Your task to perform on an android device: turn on location history Image 0: 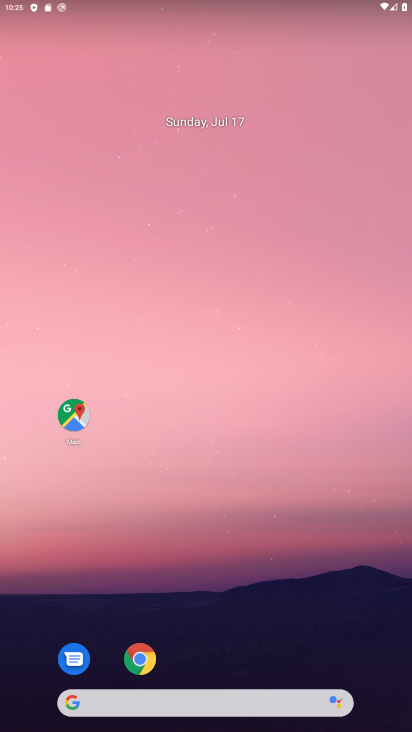
Step 0: drag from (316, 612) to (219, 53)
Your task to perform on an android device: turn on location history Image 1: 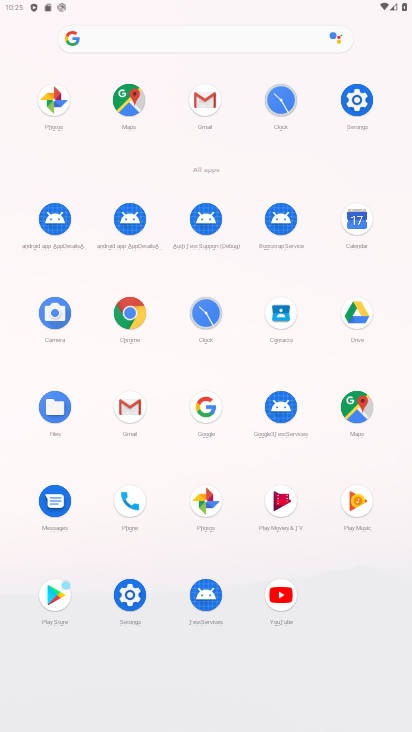
Step 1: click (369, 98)
Your task to perform on an android device: turn on location history Image 2: 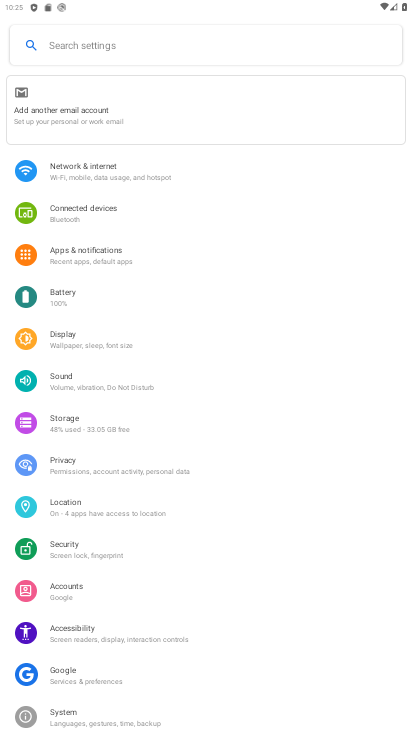
Step 2: click (94, 511)
Your task to perform on an android device: turn on location history Image 3: 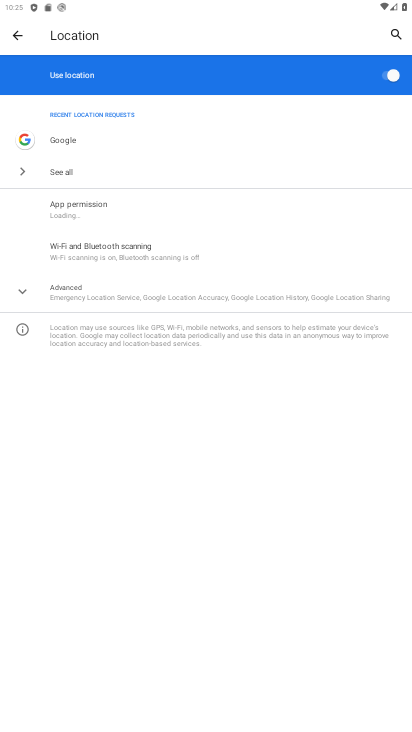
Step 3: click (97, 296)
Your task to perform on an android device: turn on location history Image 4: 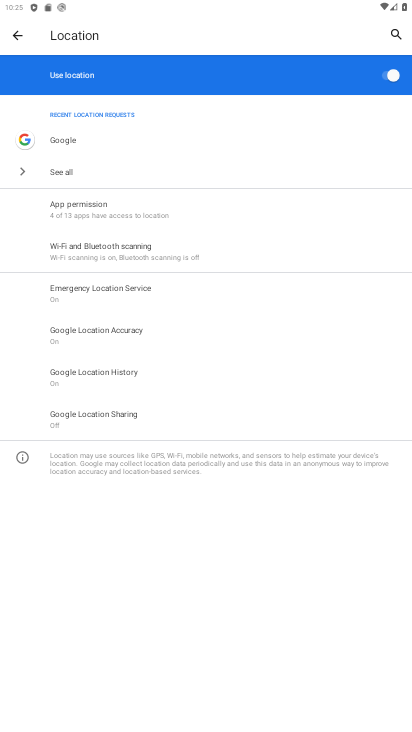
Step 4: task complete